Your task to perform on an android device: turn off location history Image 0: 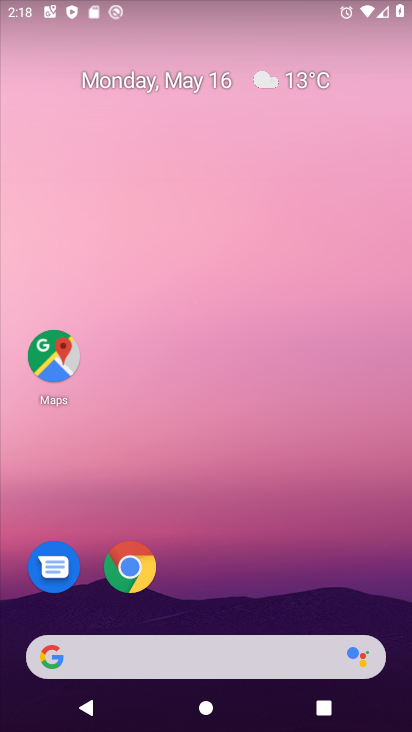
Step 0: press home button
Your task to perform on an android device: turn off location history Image 1: 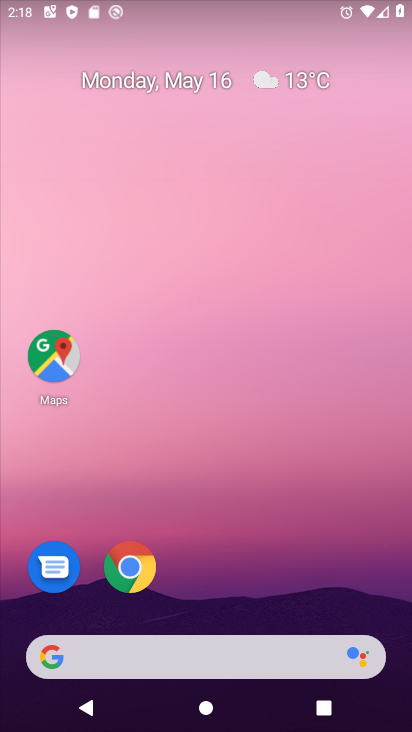
Step 1: click (45, 360)
Your task to perform on an android device: turn off location history Image 2: 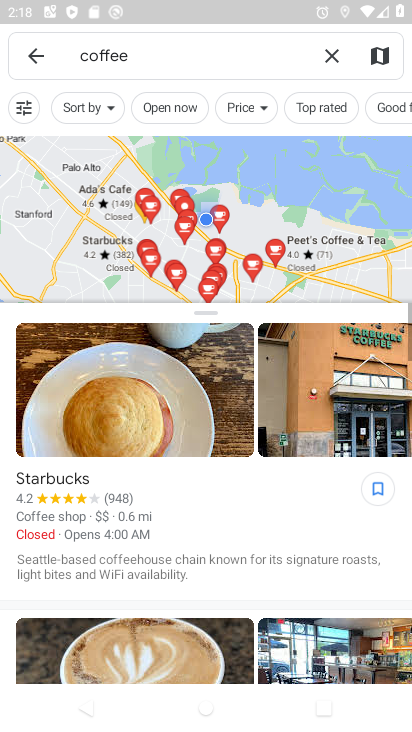
Step 2: click (25, 57)
Your task to perform on an android device: turn off location history Image 3: 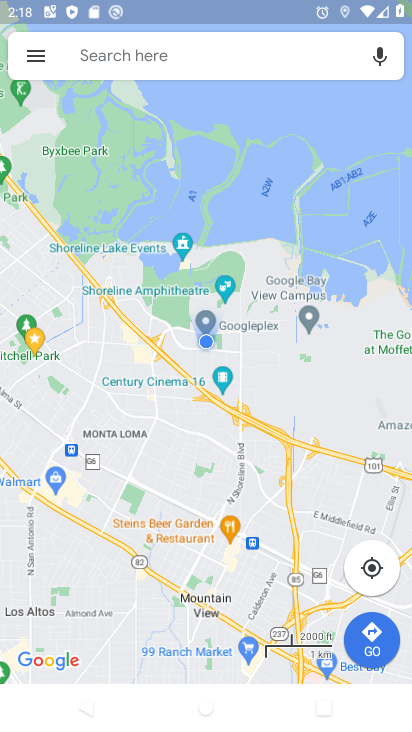
Step 3: click (25, 57)
Your task to perform on an android device: turn off location history Image 4: 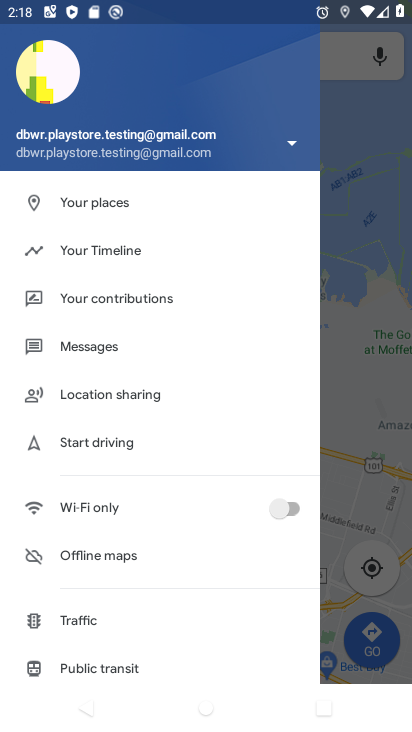
Step 4: drag from (109, 619) to (104, 375)
Your task to perform on an android device: turn off location history Image 5: 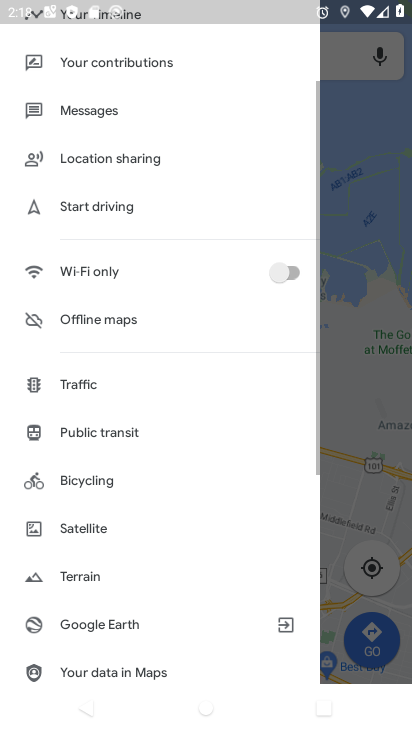
Step 5: drag from (122, 293) to (142, 731)
Your task to perform on an android device: turn off location history Image 6: 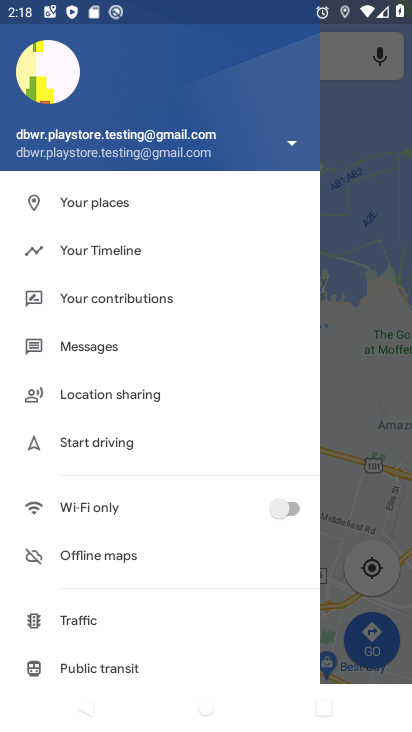
Step 6: click (101, 247)
Your task to perform on an android device: turn off location history Image 7: 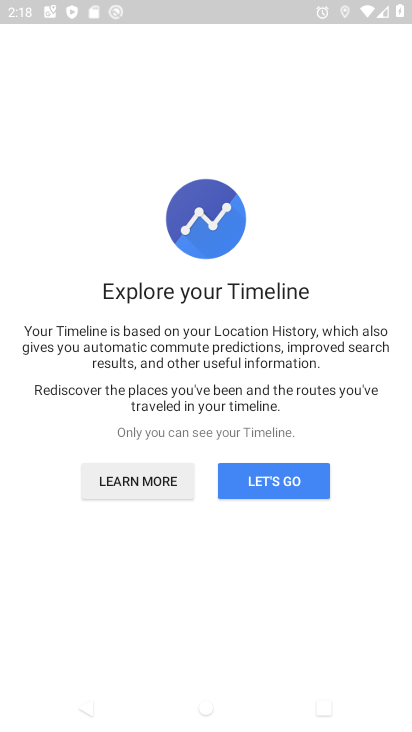
Step 7: click (225, 485)
Your task to perform on an android device: turn off location history Image 8: 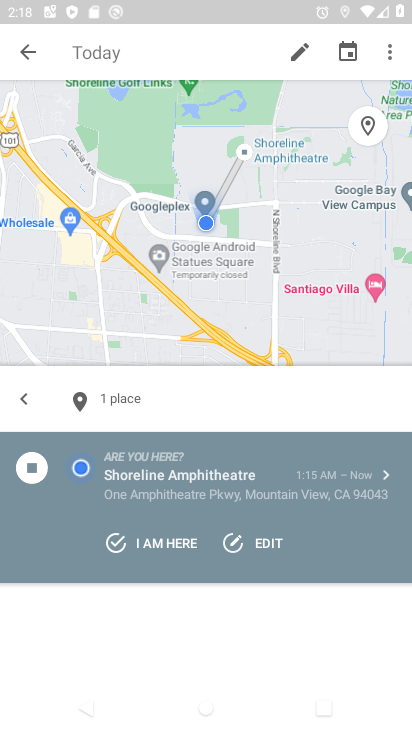
Step 8: click (391, 53)
Your task to perform on an android device: turn off location history Image 9: 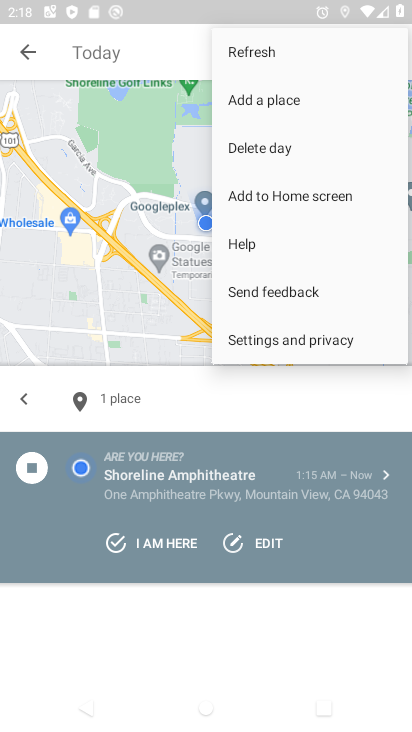
Step 9: click (326, 348)
Your task to perform on an android device: turn off location history Image 10: 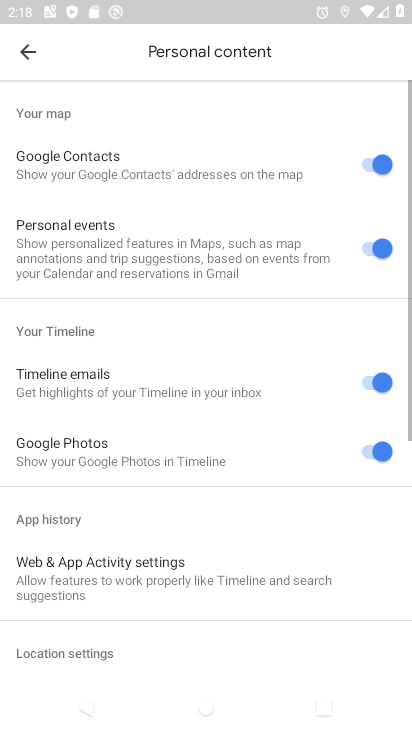
Step 10: drag from (202, 609) to (149, 182)
Your task to perform on an android device: turn off location history Image 11: 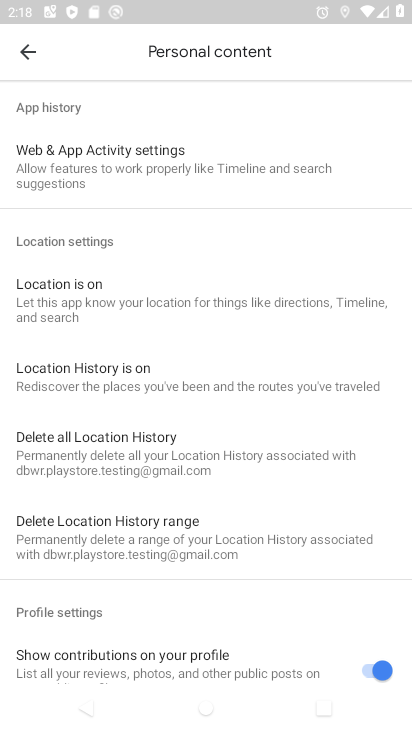
Step 11: click (124, 432)
Your task to perform on an android device: turn off location history Image 12: 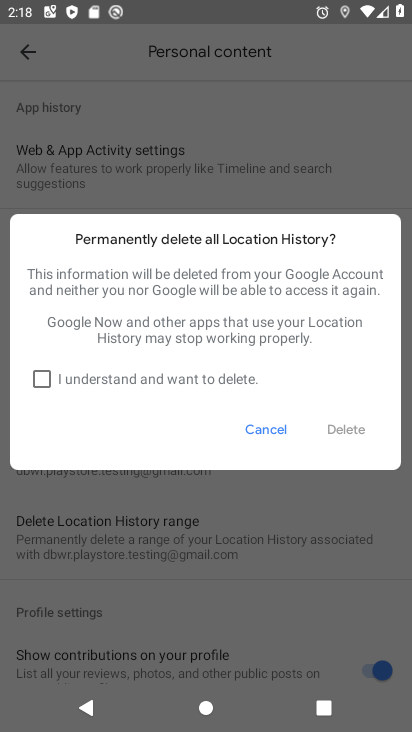
Step 12: click (271, 428)
Your task to perform on an android device: turn off location history Image 13: 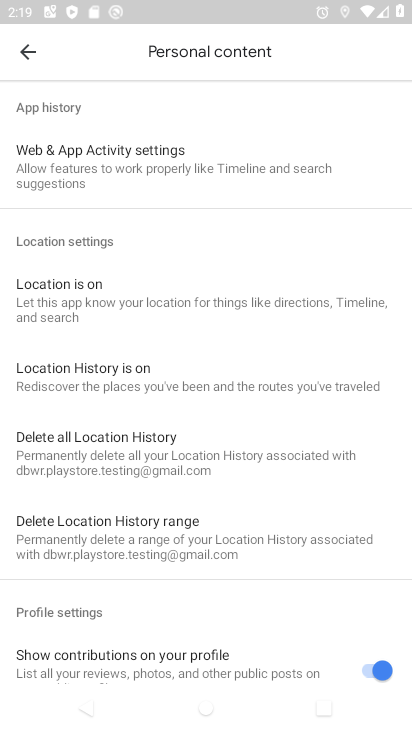
Step 13: click (123, 376)
Your task to perform on an android device: turn off location history Image 14: 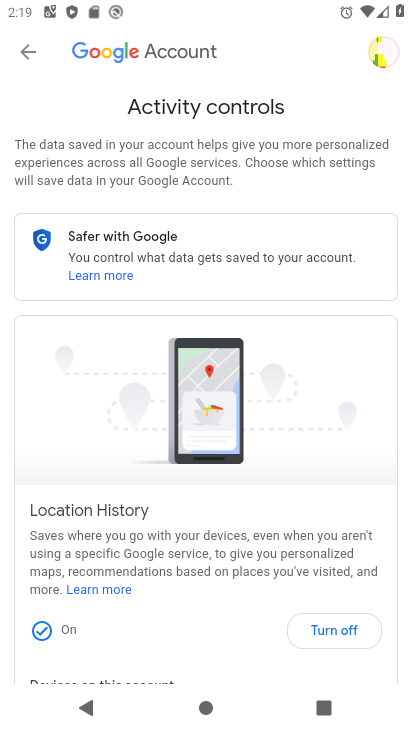
Step 14: click (342, 632)
Your task to perform on an android device: turn off location history Image 15: 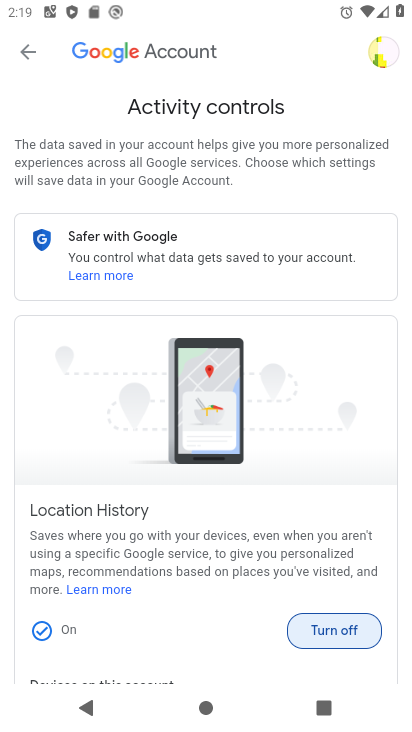
Step 15: click (324, 630)
Your task to perform on an android device: turn off location history Image 16: 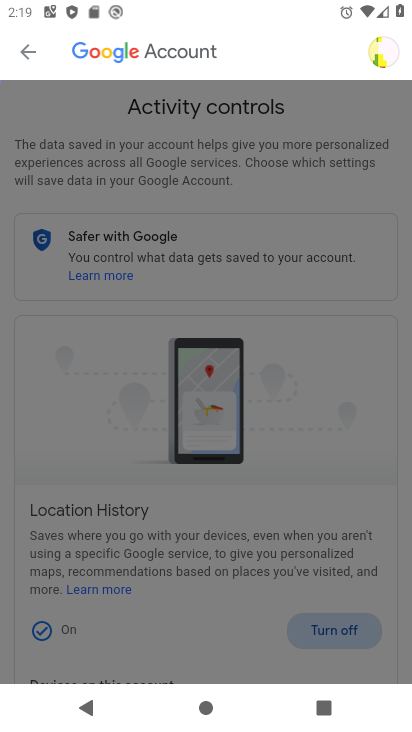
Step 16: click (324, 630)
Your task to perform on an android device: turn off location history Image 17: 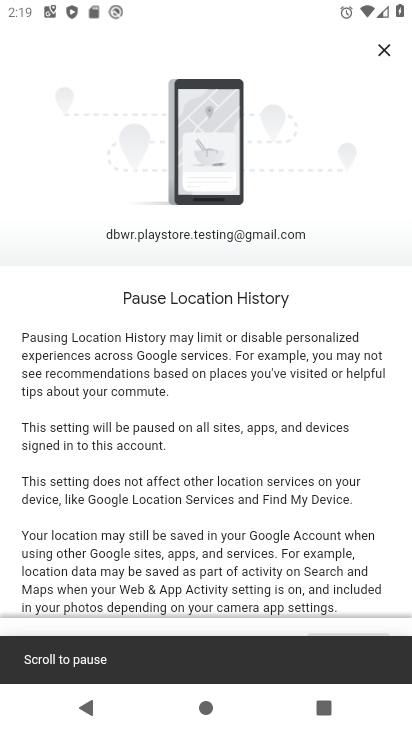
Step 17: drag from (264, 577) to (332, 50)
Your task to perform on an android device: turn off location history Image 18: 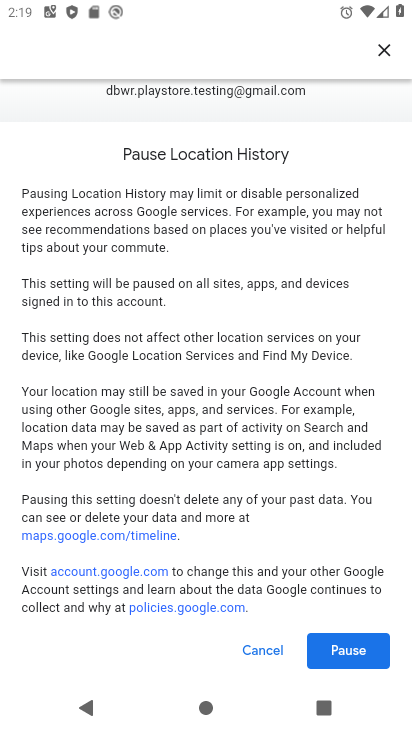
Step 18: click (357, 657)
Your task to perform on an android device: turn off location history Image 19: 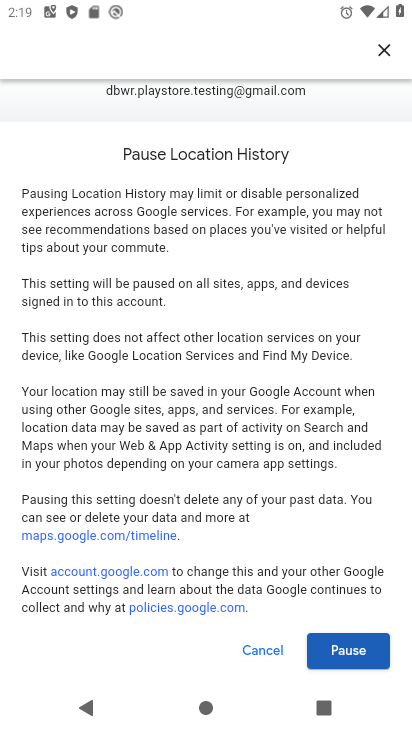
Step 19: click (357, 657)
Your task to perform on an android device: turn off location history Image 20: 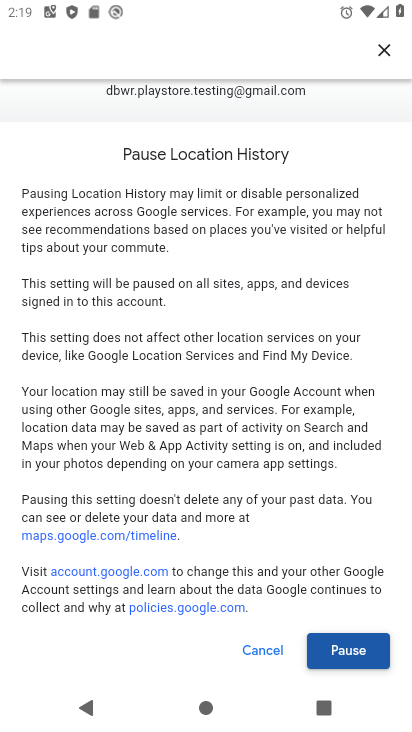
Step 20: click (357, 657)
Your task to perform on an android device: turn off location history Image 21: 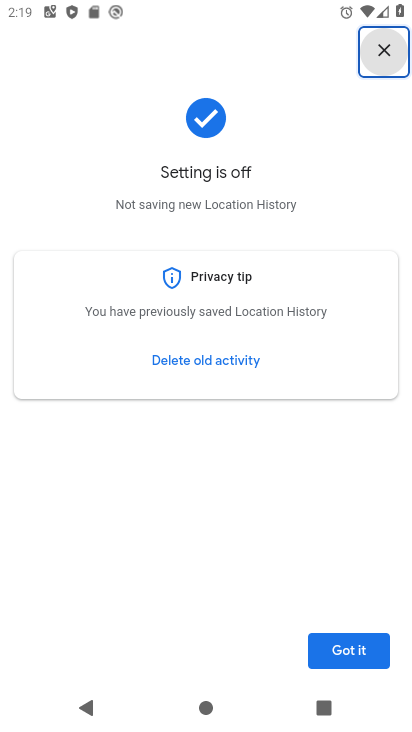
Step 21: click (355, 663)
Your task to perform on an android device: turn off location history Image 22: 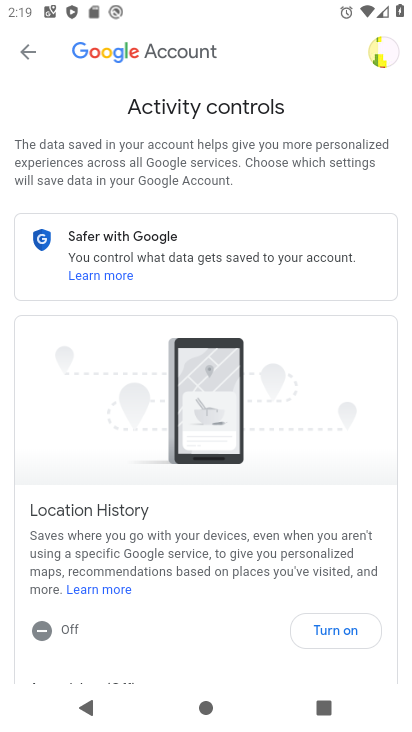
Step 22: task complete